Your task to perform on an android device: What is the recent news? Image 0: 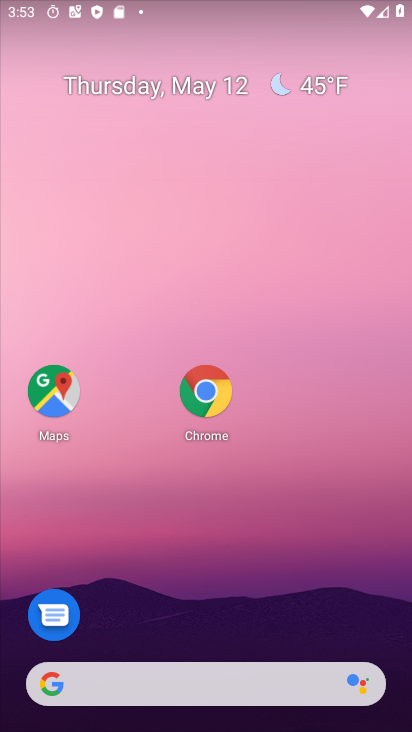
Step 0: drag from (211, 557) to (191, 91)
Your task to perform on an android device: What is the recent news? Image 1: 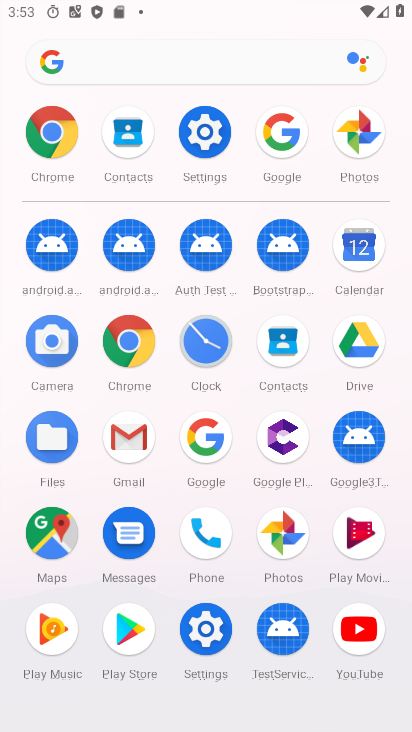
Step 1: click (205, 436)
Your task to perform on an android device: What is the recent news? Image 2: 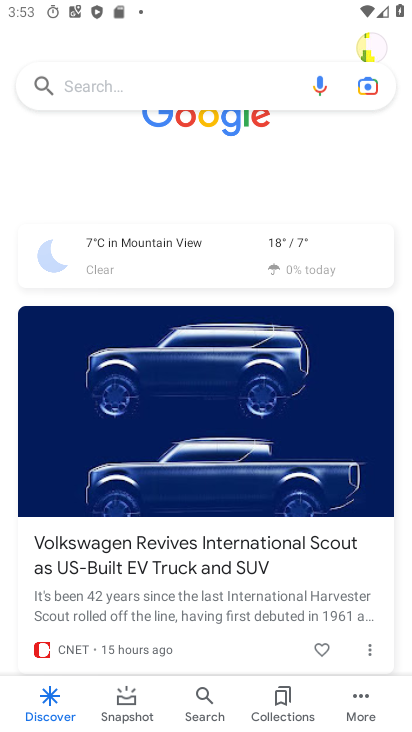
Step 2: drag from (183, 201) to (206, 336)
Your task to perform on an android device: What is the recent news? Image 3: 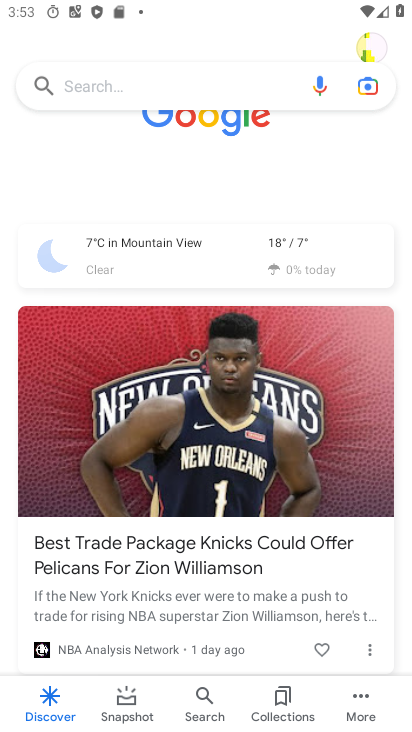
Step 3: click (149, 92)
Your task to perform on an android device: What is the recent news? Image 4: 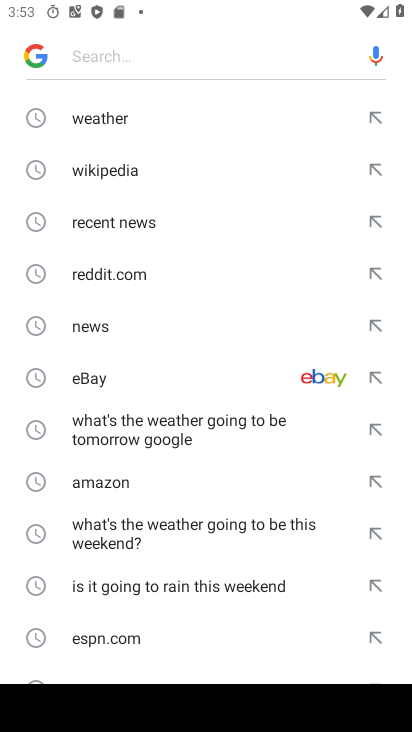
Step 4: click (153, 233)
Your task to perform on an android device: What is the recent news? Image 5: 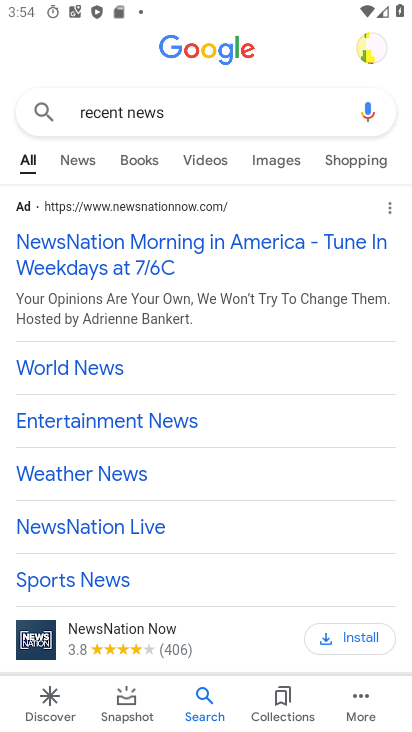
Step 5: task complete